Your task to perform on an android device: visit the assistant section in the google photos Image 0: 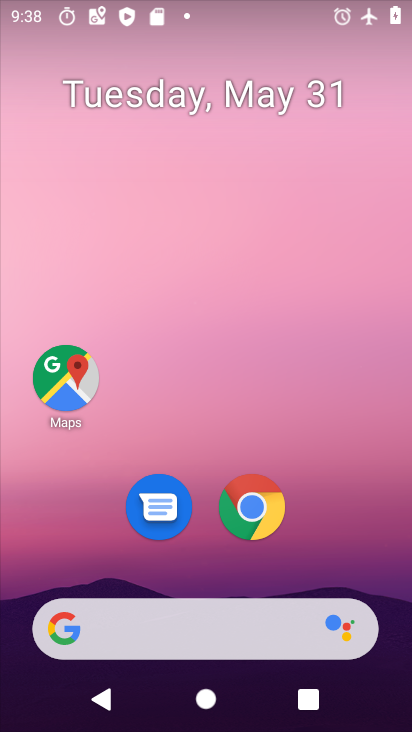
Step 0: drag from (354, 587) to (392, 9)
Your task to perform on an android device: visit the assistant section in the google photos Image 1: 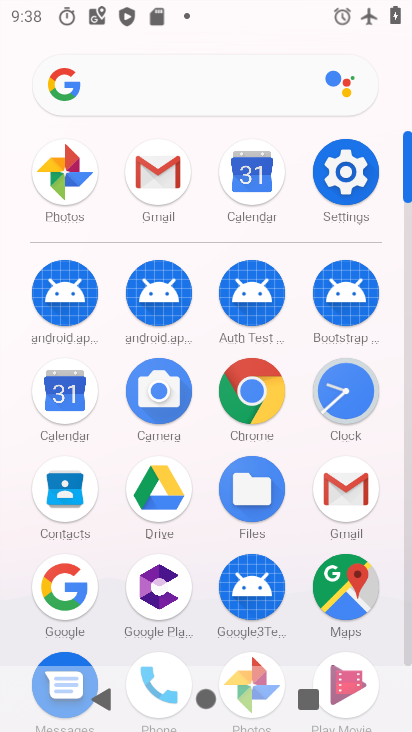
Step 1: click (69, 182)
Your task to perform on an android device: visit the assistant section in the google photos Image 2: 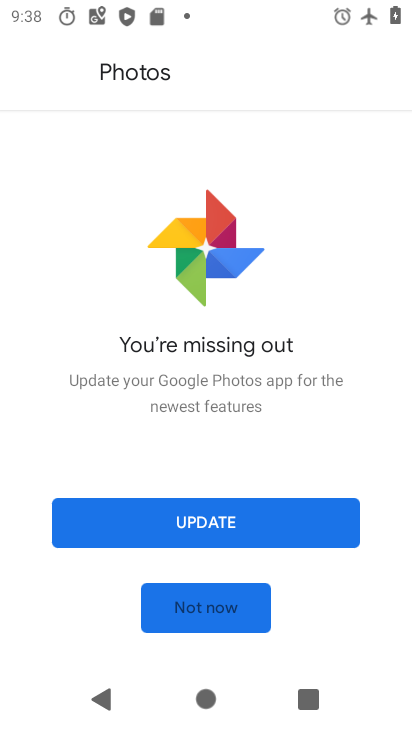
Step 2: click (210, 605)
Your task to perform on an android device: visit the assistant section in the google photos Image 3: 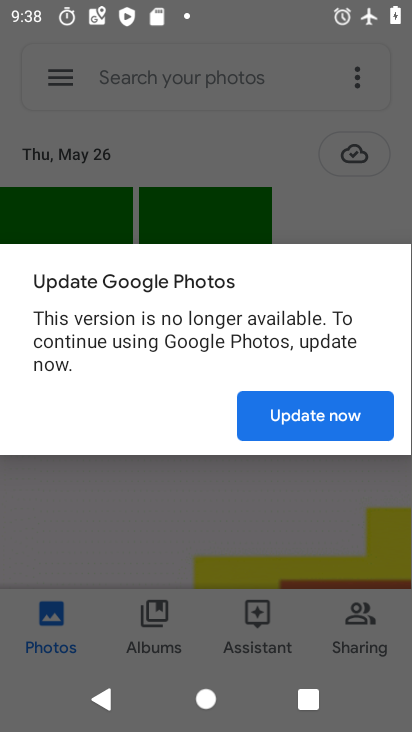
Step 3: click (324, 426)
Your task to perform on an android device: visit the assistant section in the google photos Image 4: 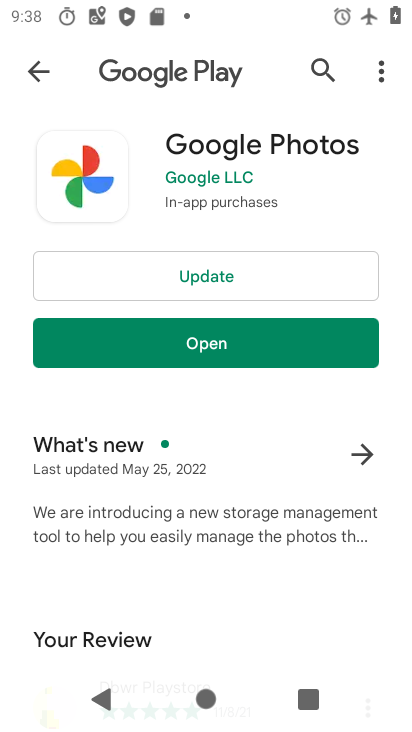
Step 4: click (219, 341)
Your task to perform on an android device: visit the assistant section in the google photos Image 5: 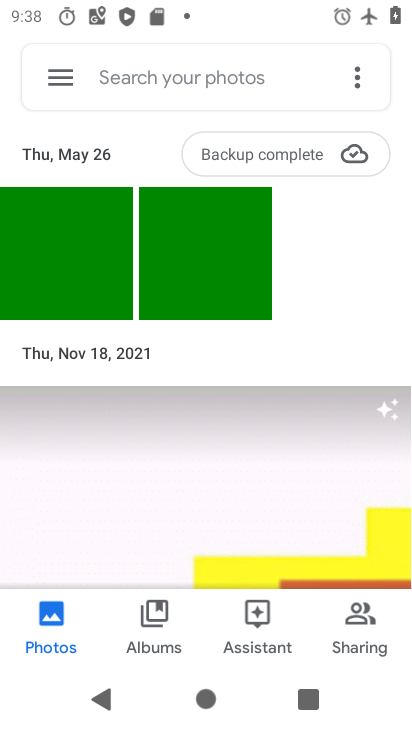
Step 5: click (255, 632)
Your task to perform on an android device: visit the assistant section in the google photos Image 6: 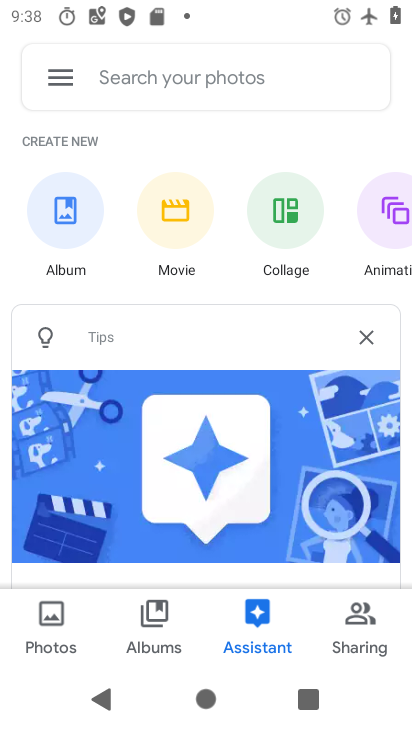
Step 6: task complete